Your task to perform on an android device: Open calendar and show me the second week of next month Image 0: 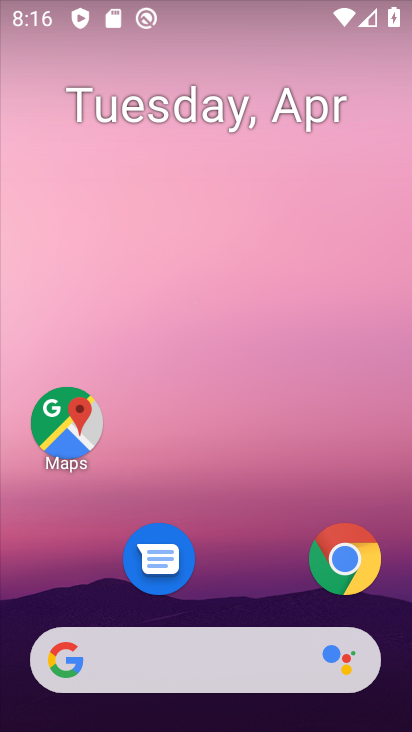
Step 0: drag from (210, 543) to (240, 87)
Your task to perform on an android device: Open calendar and show me the second week of next month Image 1: 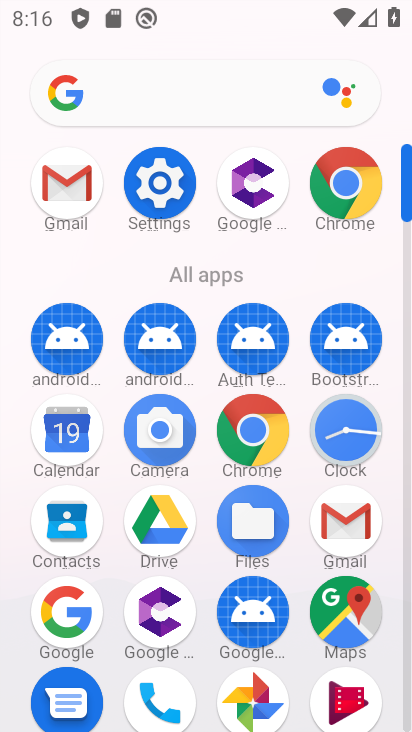
Step 1: click (61, 446)
Your task to perform on an android device: Open calendar and show me the second week of next month Image 2: 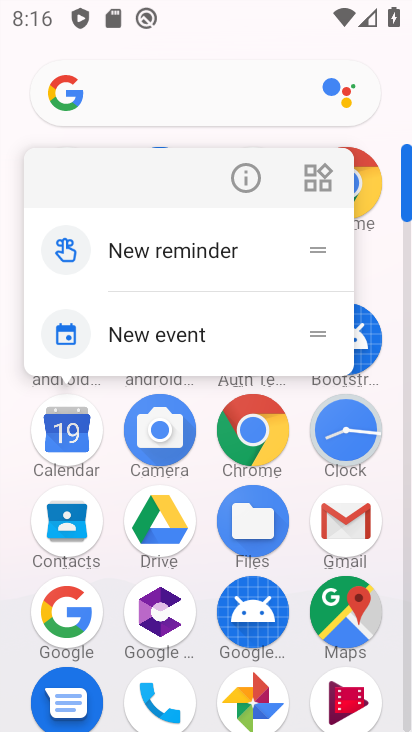
Step 2: click (66, 433)
Your task to perform on an android device: Open calendar and show me the second week of next month Image 3: 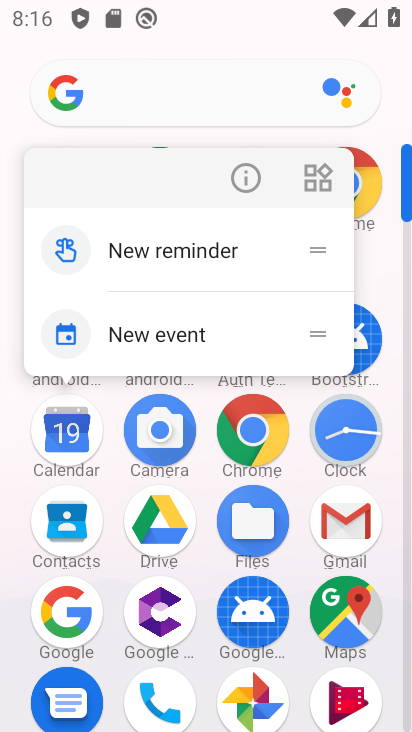
Step 3: click (66, 433)
Your task to perform on an android device: Open calendar and show me the second week of next month Image 4: 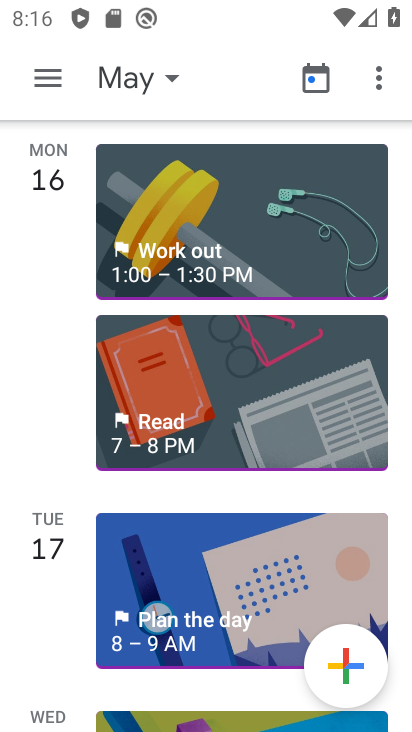
Step 4: drag from (65, 385) to (62, 350)
Your task to perform on an android device: Open calendar and show me the second week of next month Image 5: 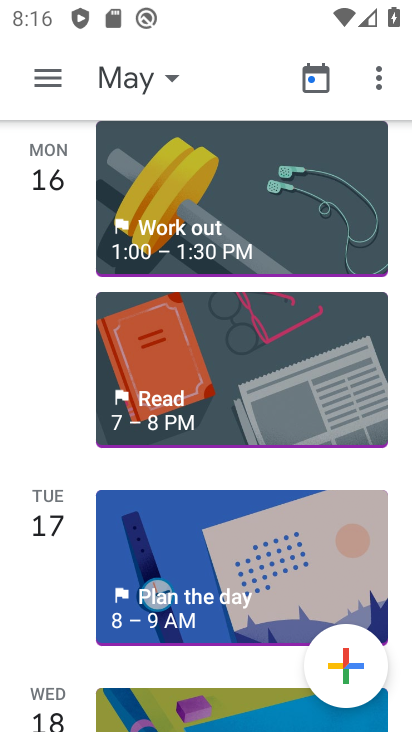
Step 5: click (44, 95)
Your task to perform on an android device: Open calendar and show me the second week of next month Image 6: 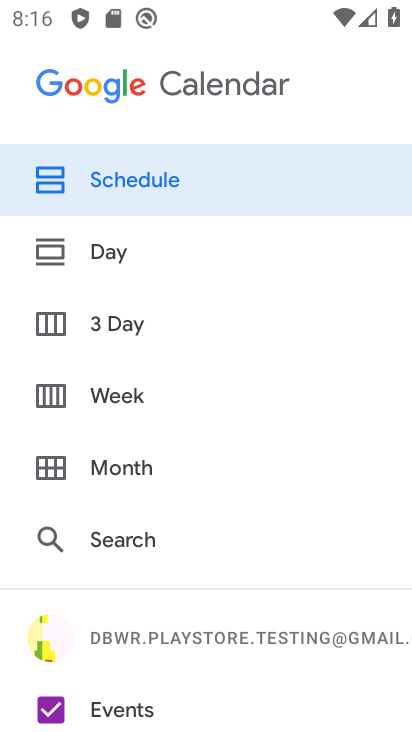
Step 6: click (120, 463)
Your task to perform on an android device: Open calendar and show me the second week of next month Image 7: 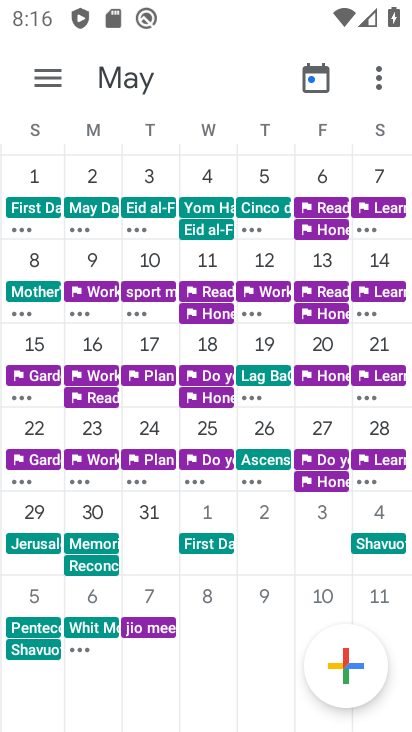
Step 7: click (93, 271)
Your task to perform on an android device: Open calendar and show me the second week of next month Image 8: 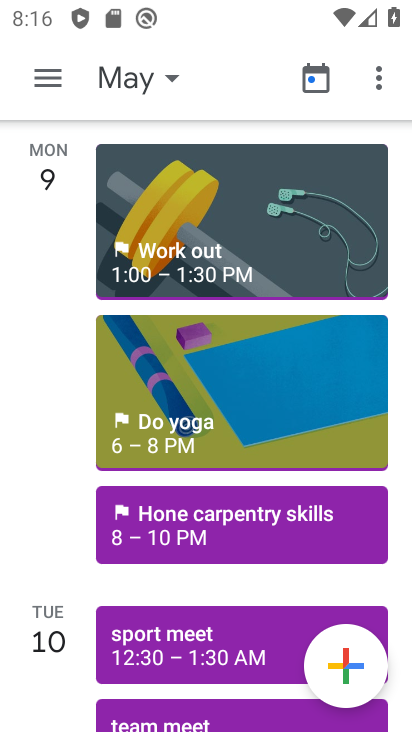
Step 8: task complete